Your task to perform on an android device: turn on sleep mode Image 0: 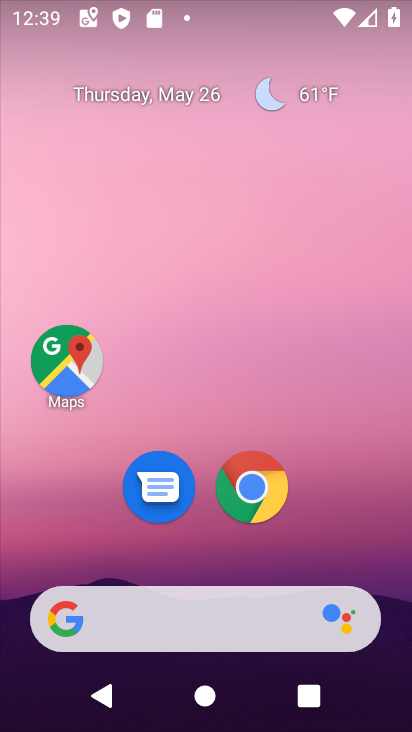
Step 0: drag from (229, 612) to (77, 186)
Your task to perform on an android device: turn on sleep mode Image 1: 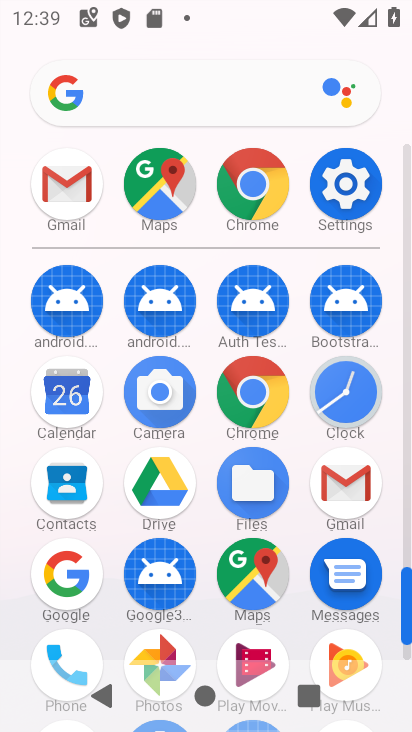
Step 1: click (341, 191)
Your task to perform on an android device: turn on sleep mode Image 2: 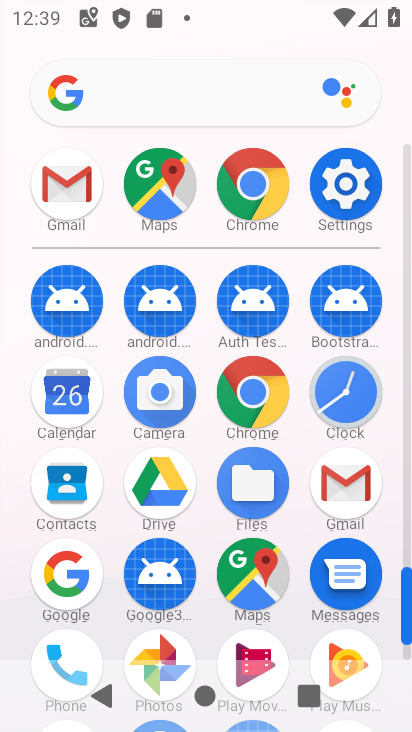
Step 2: click (341, 191)
Your task to perform on an android device: turn on sleep mode Image 3: 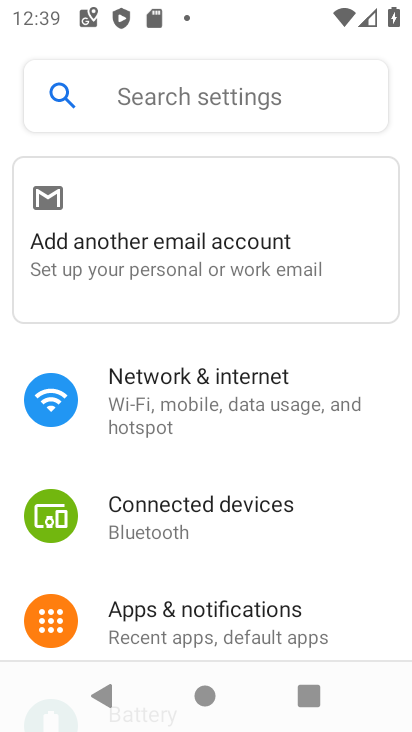
Step 3: drag from (193, 419) to (196, 152)
Your task to perform on an android device: turn on sleep mode Image 4: 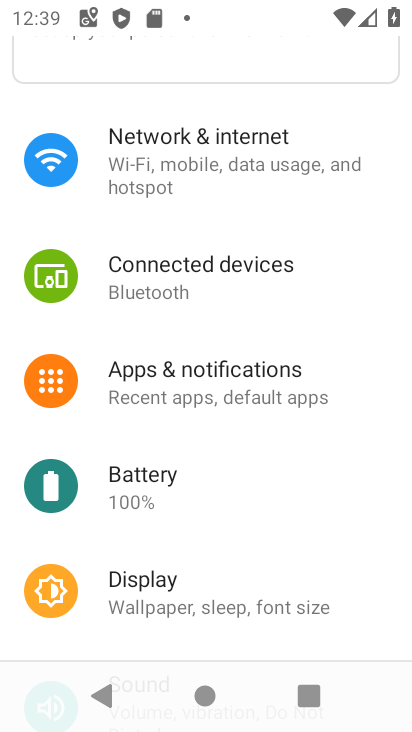
Step 4: drag from (188, 503) to (184, 165)
Your task to perform on an android device: turn on sleep mode Image 5: 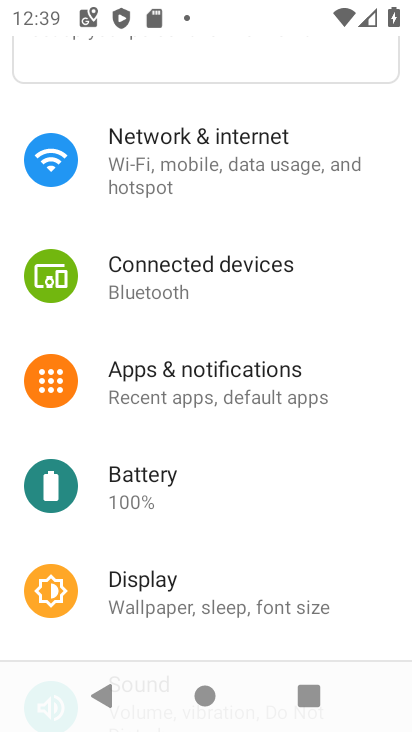
Step 5: click (151, 603)
Your task to perform on an android device: turn on sleep mode Image 6: 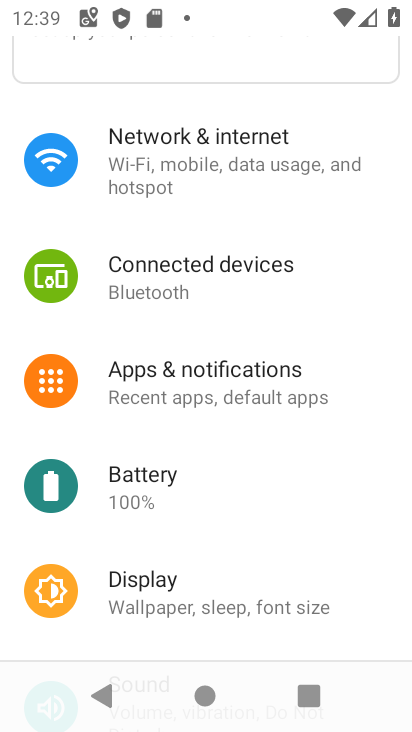
Step 6: click (153, 603)
Your task to perform on an android device: turn on sleep mode Image 7: 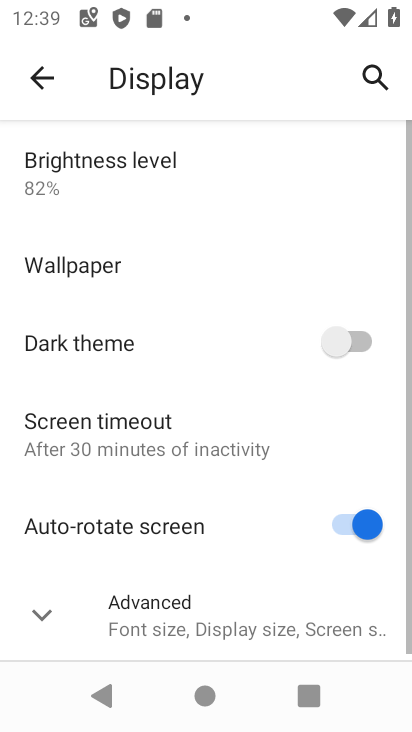
Step 7: click (172, 597)
Your task to perform on an android device: turn on sleep mode Image 8: 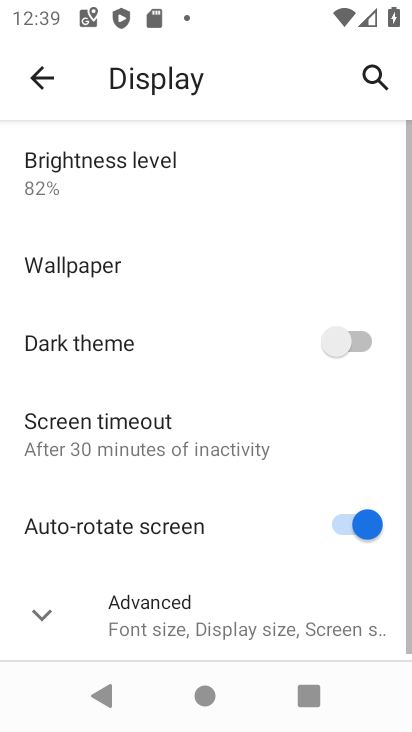
Step 8: click (172, 597)
Your task to perform on an android device: turn on sleep mode Image 9: 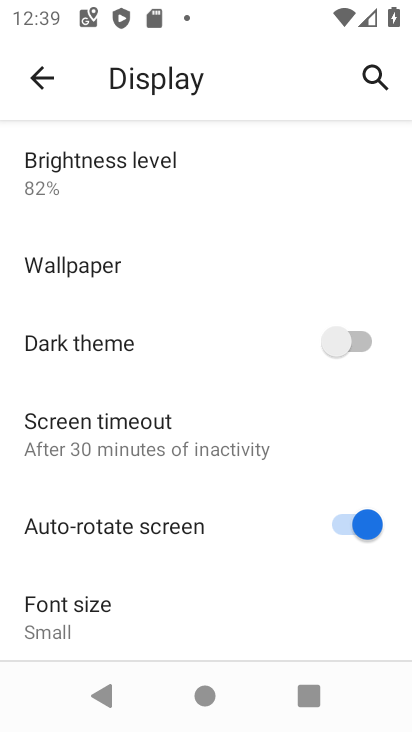
Step 9: drag from (145, 558) to (116, 192)
Your task to perform on an android device: turn on sleep mode Image 10: 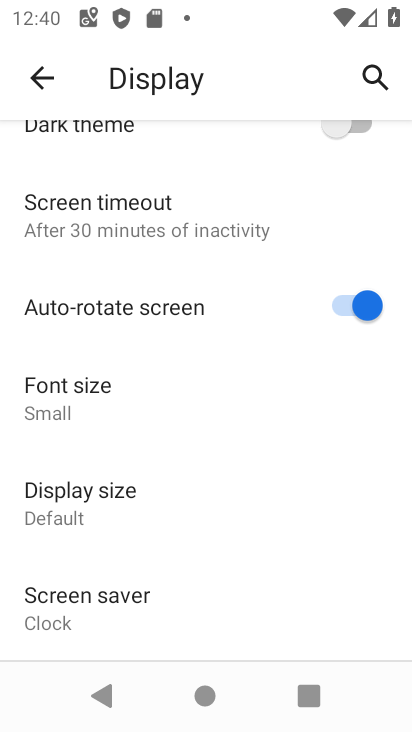
Step 10: drag from (100, 261) to (198, 601)
Your task to perform on an android device: turn on sleep mode Image 11: 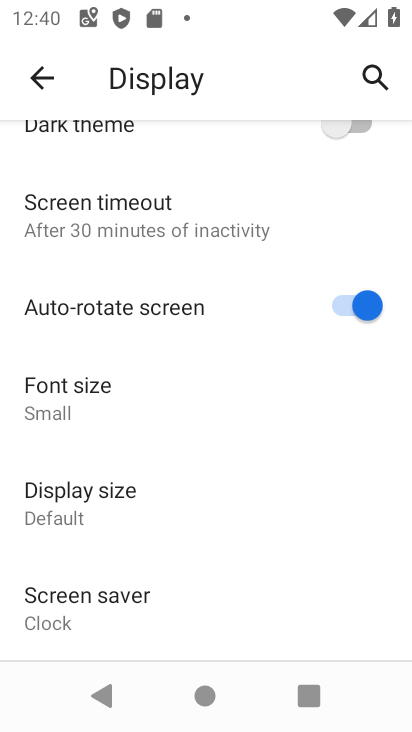
Step 11: drag from (181, 577) to (228, 603)
Your task to perform on an android device: turn on sleep mode Image 12: 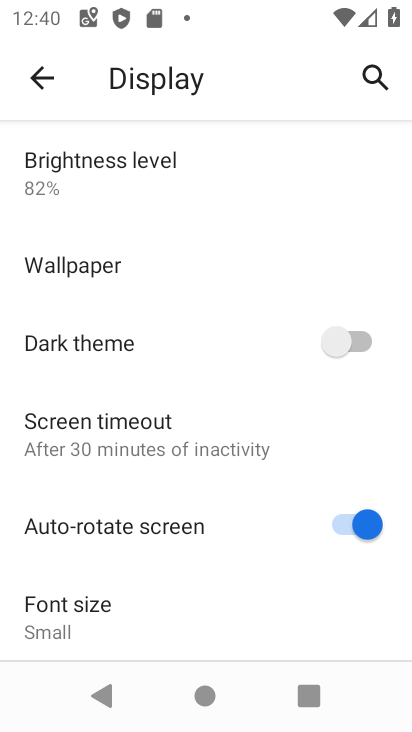
Step 12: click (255, 621)
Your task to perform on an android device: turn on sleep mode Image 13: 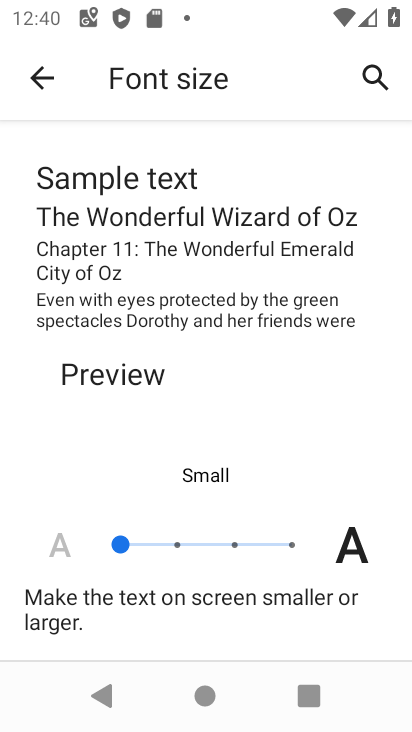
Step 13: click (40, 91)
Your task to perform on an android device: turn on sleep mode Image 14: 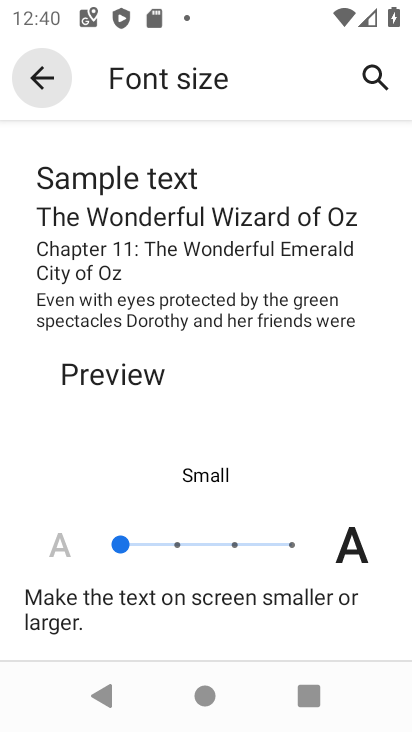
Step 14: click (39, 70)
Your task to perform on an android device: turn on sleep mode Image 15: 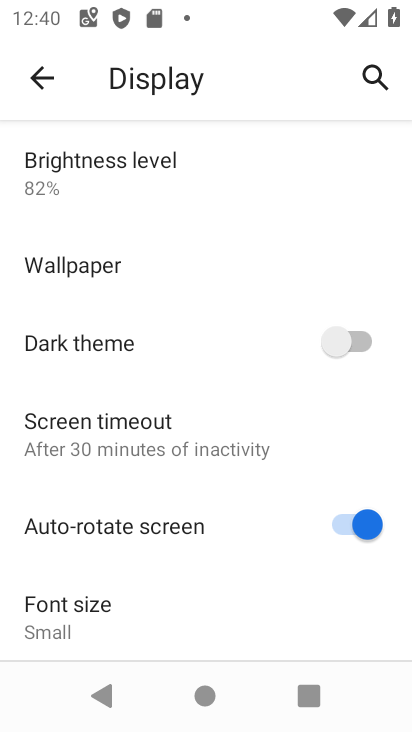
Step 15: click (116, 445)
Your task to perform on an android device: turn on sleep mode Image 16: 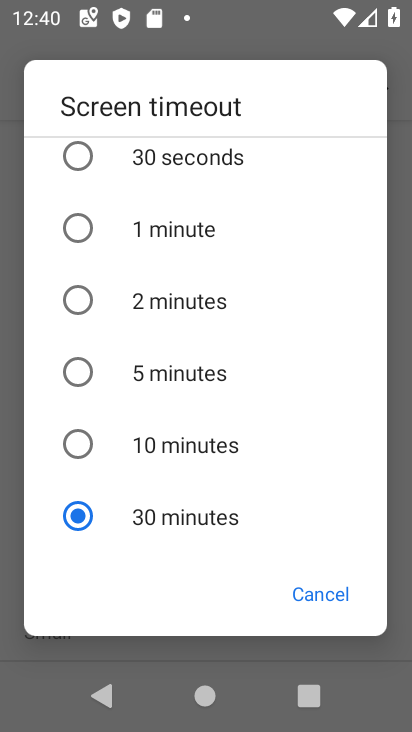
Step 16: task complete